Your task to perform on an android device: Toggle the flashlight Image 0: 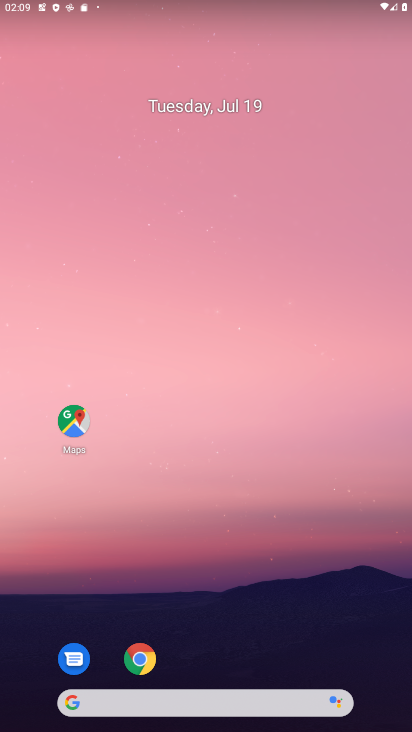
Step 0: press home button
Your task to perform on an android device: Toggle the flashlight Image 1: 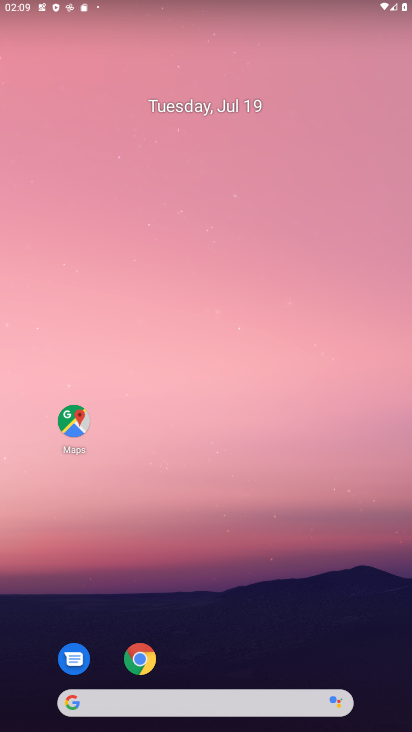
Step 1: task complete